Your task to perform on an android device: set an alarm Image 0: 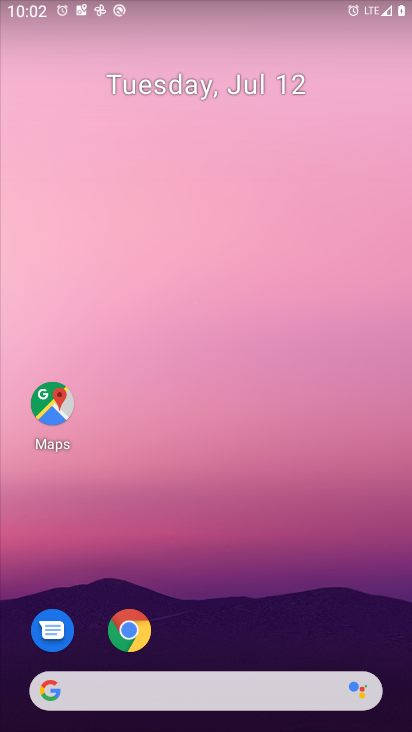
Step 0: drag from (260, 585) to (215, 57)
Your task to perform on an android device: set an alarm Image 1: 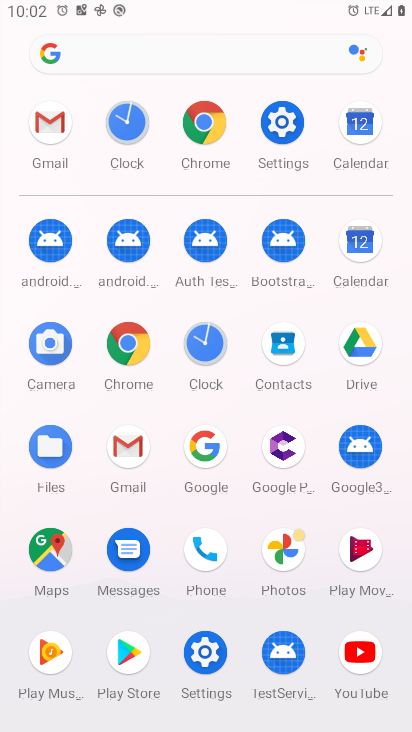
Step 1: click (214, 332)
Your task to perform on an android device: set an alarm Image 2: 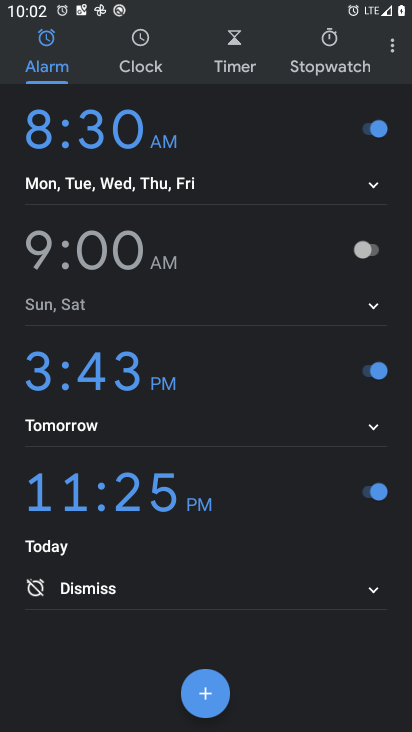
Step 2: click (200, 684)
Your task to perform on an android device: set an alarm Image 3: 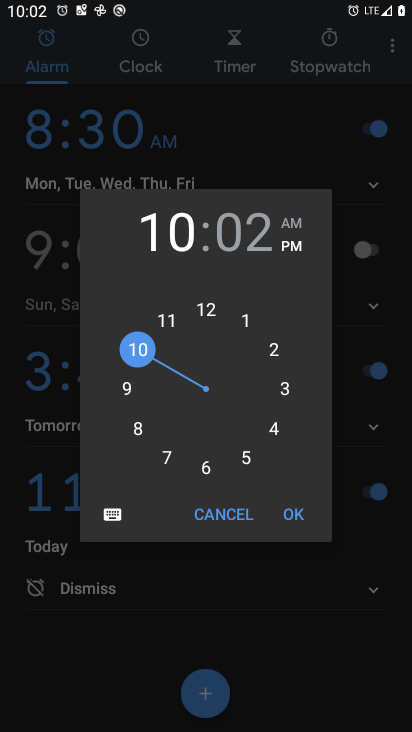
Step 3: click (240, 320)
Your task to perform on an android device: set an alarm Image 4: 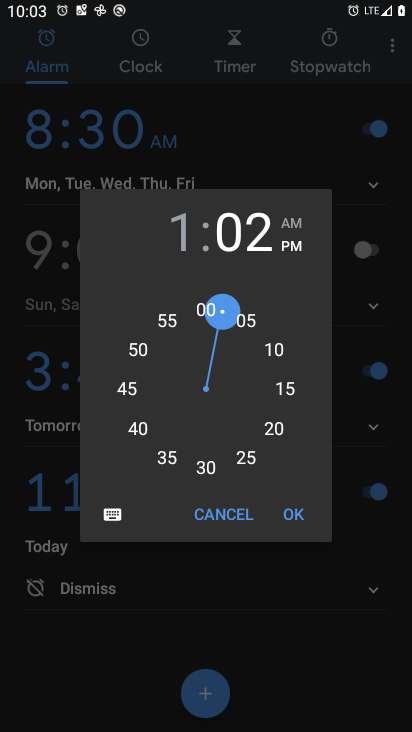
Step 4: click (285, 506)
Your task to perform on an android device: set an alarm Image 5: 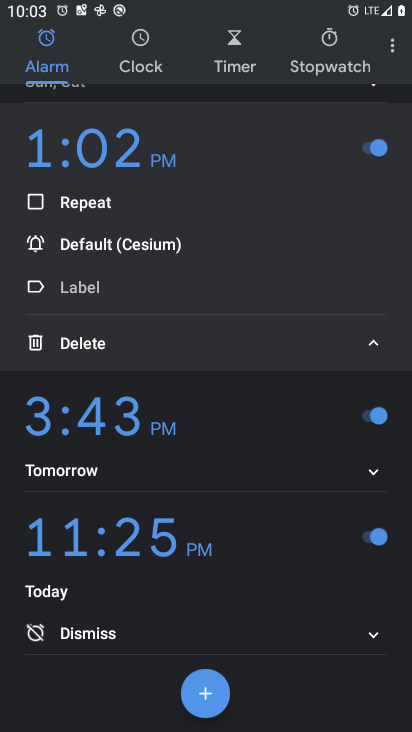
Step 5: click (208, 657)
Your task to perform on an android device: set an alarm Image 6: 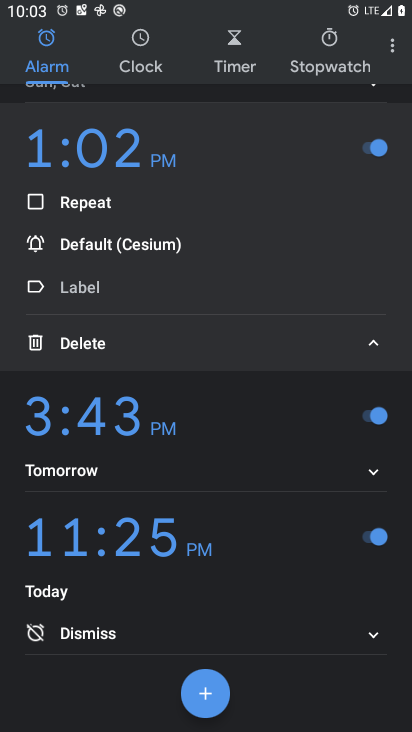
Step 6: task complete